Your task to perform on an android device: turn off translation in the chrome app Image 0: 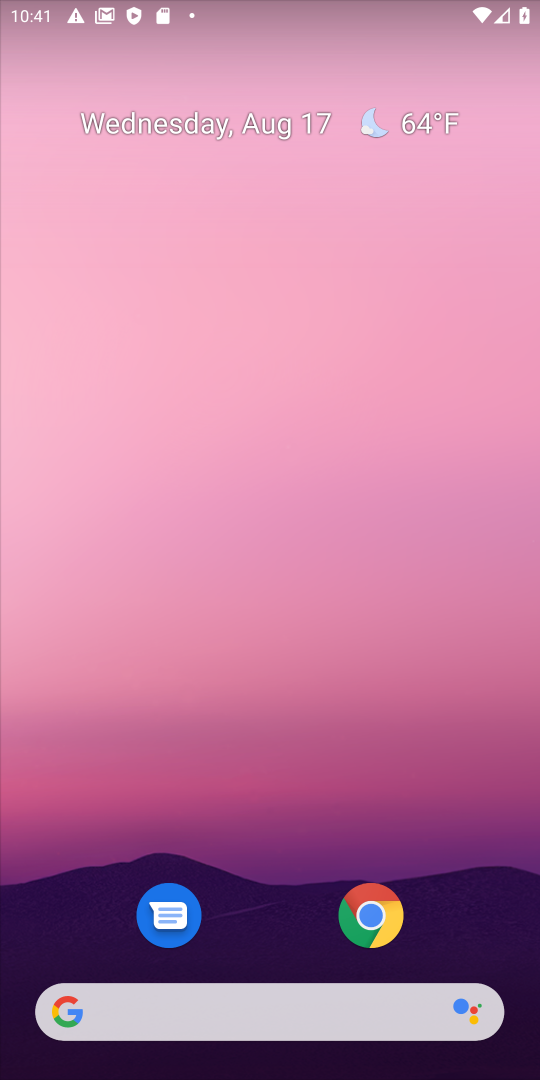
Step 0: click (270, 251)
Your task to perform on an android device: turn off translation in the chrome app Image 1: 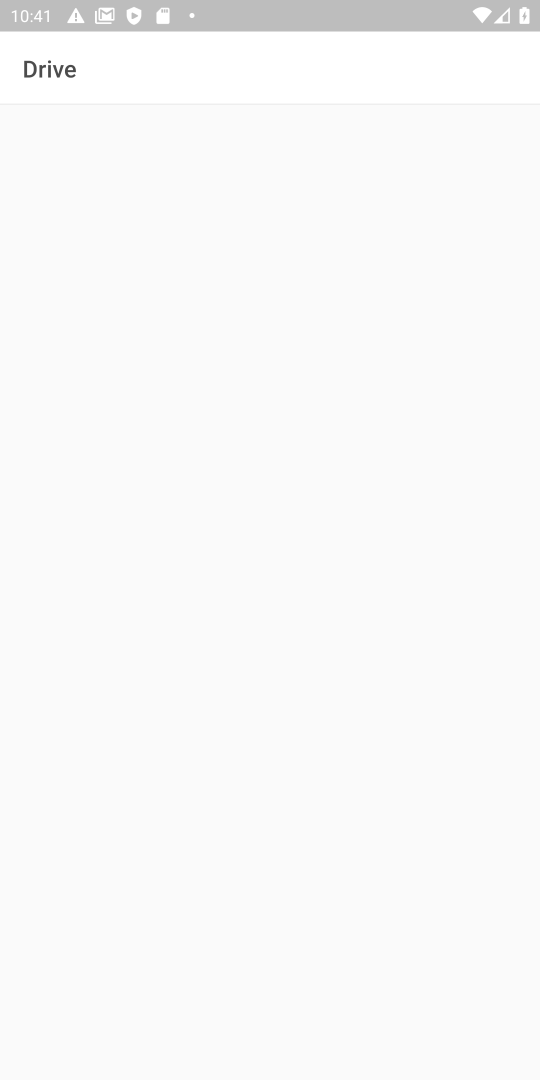
Step 1: press home button
Your task to perform on an android device: turn off translation in the chrome app Image 2: 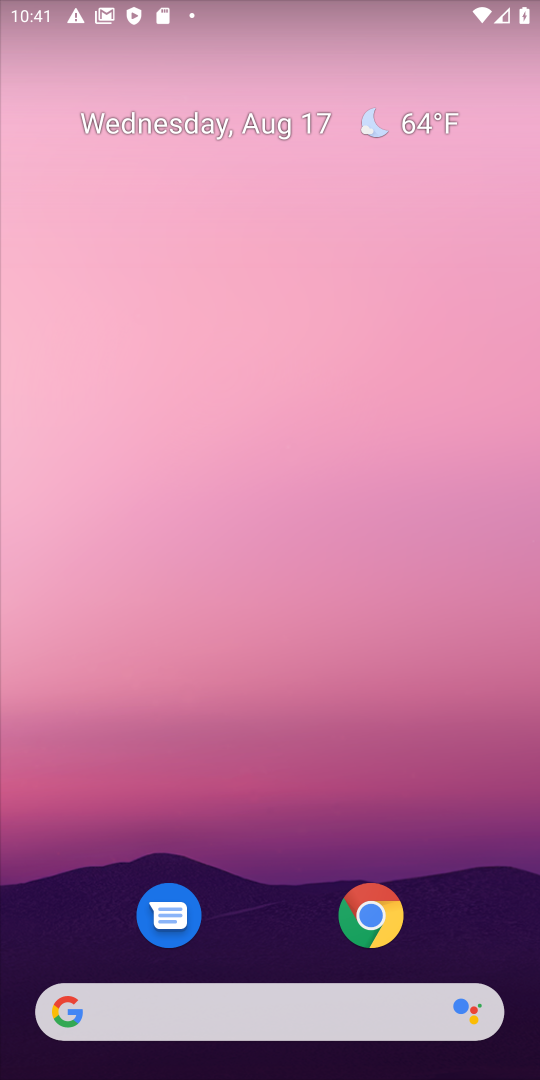
Step 2: click (369, 913)
Your task to perform on an android device: turn off translation in the chrome app Image 3: 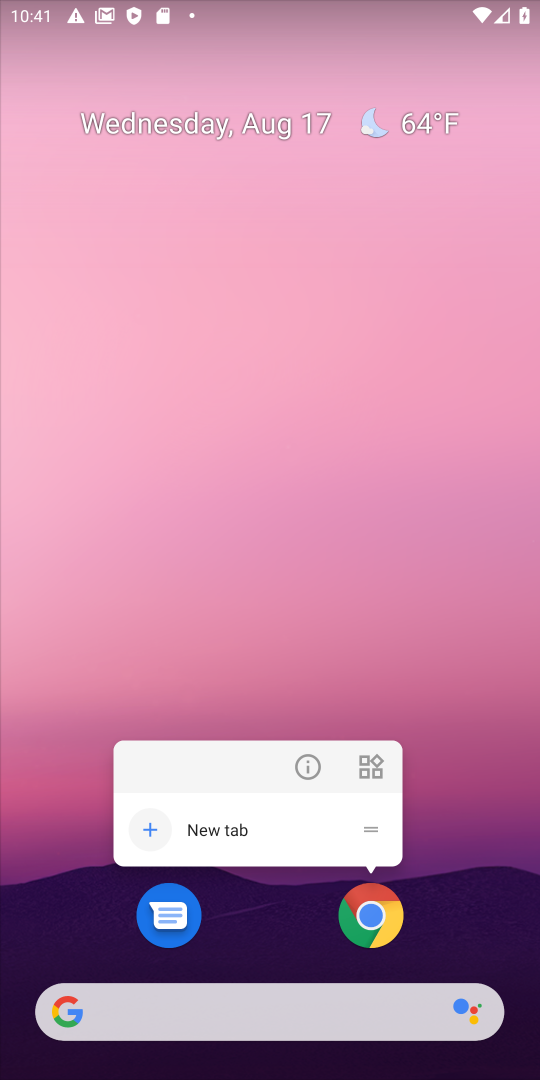
Step 3: click (368, 918)
Your task to perform on an android device: turn off translation in the chrome app Image 4: 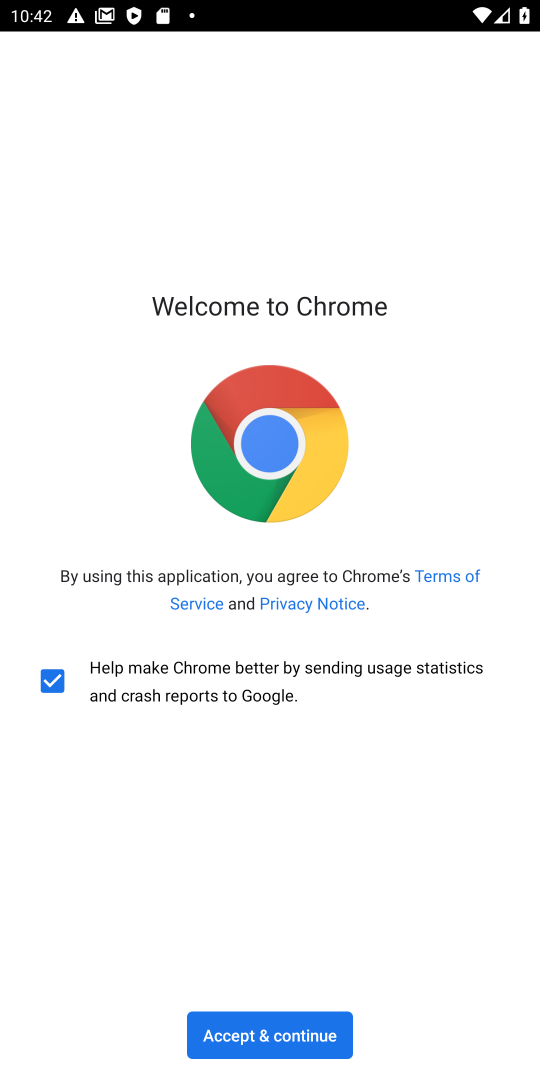
Step 4: click (273, 1039)
Your task to perform on an android device: turn off translation in the chrome app Image 5: 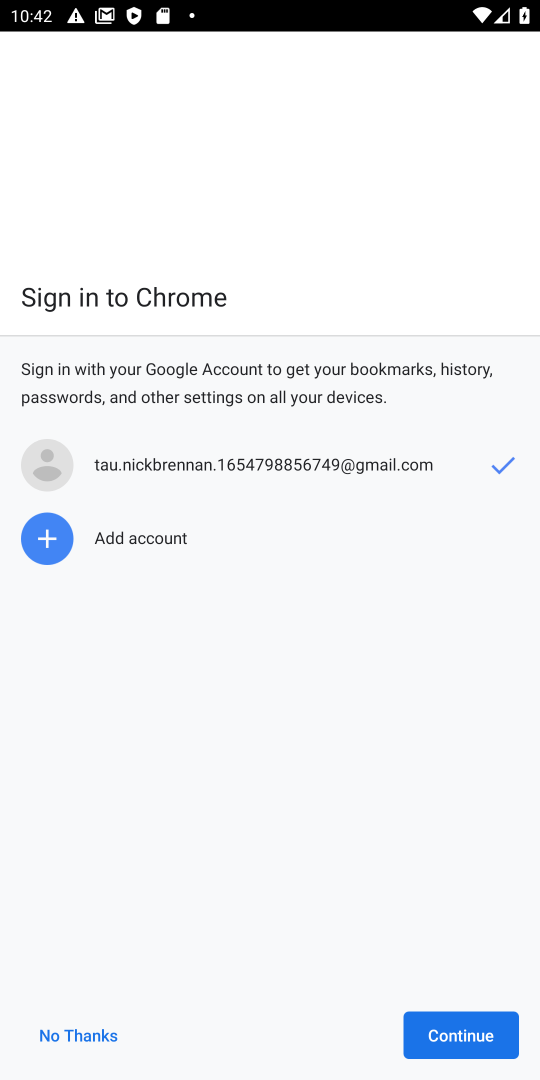
Step 5: click (439, 1032)
Your task to perform on an android device: turn off translation in the chrome app Image 6: 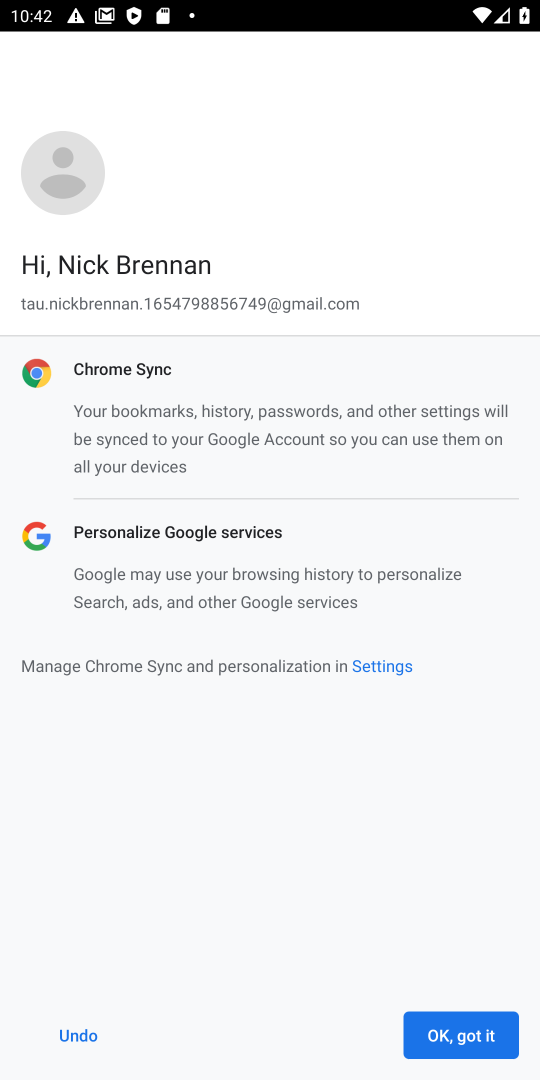
Step 6: click (439, 1032)
Your task to perform on an android device: turn off translation in the chrome app Image 7: 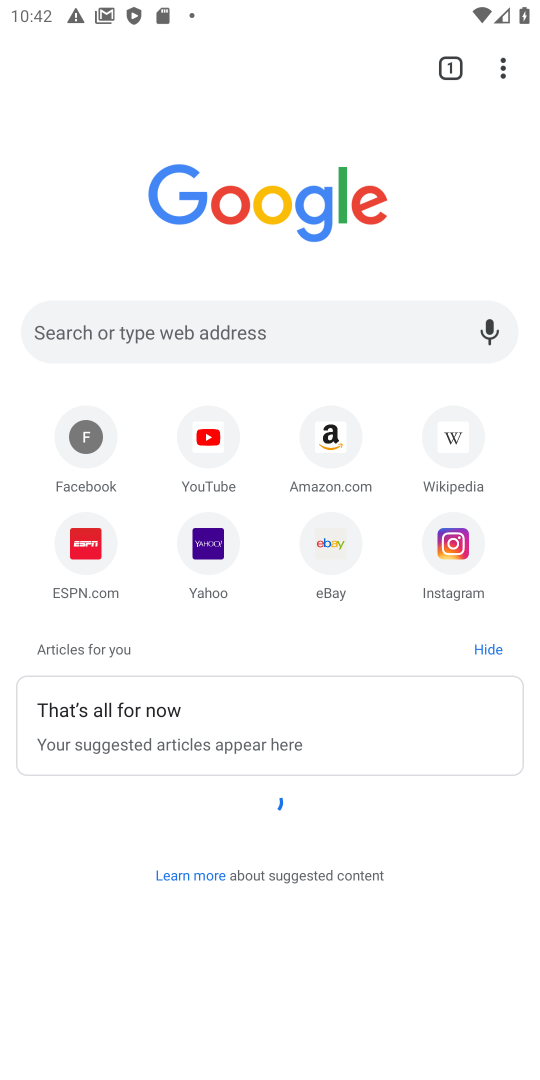
Step 7: click (498, 65)
Your task to perform on an android device: turn off translation in the chrome app Image 8: 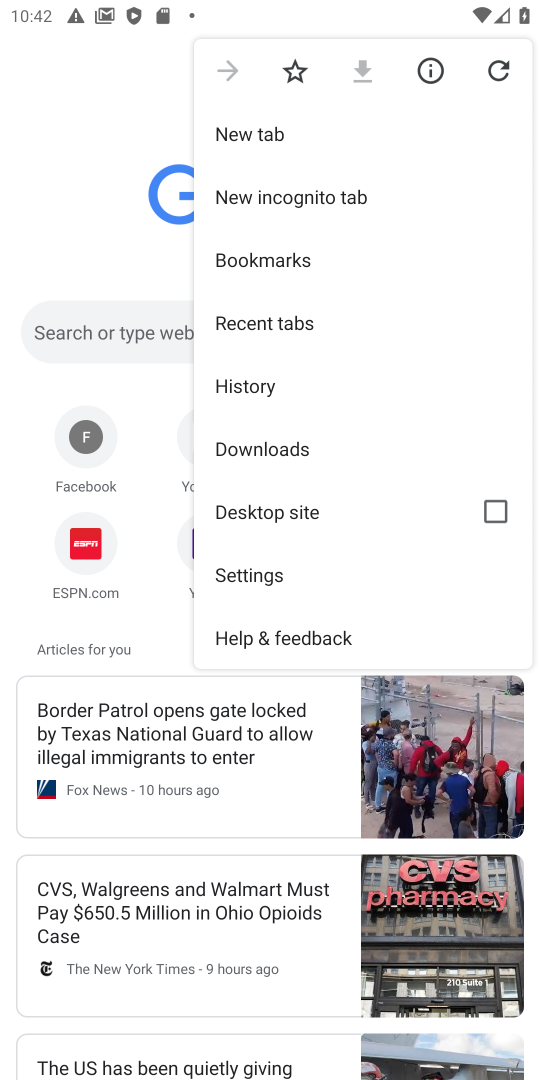
Step 8: click (256, 578)
Your task to perform on an android device: turn off translation in the chrome app Image 9: 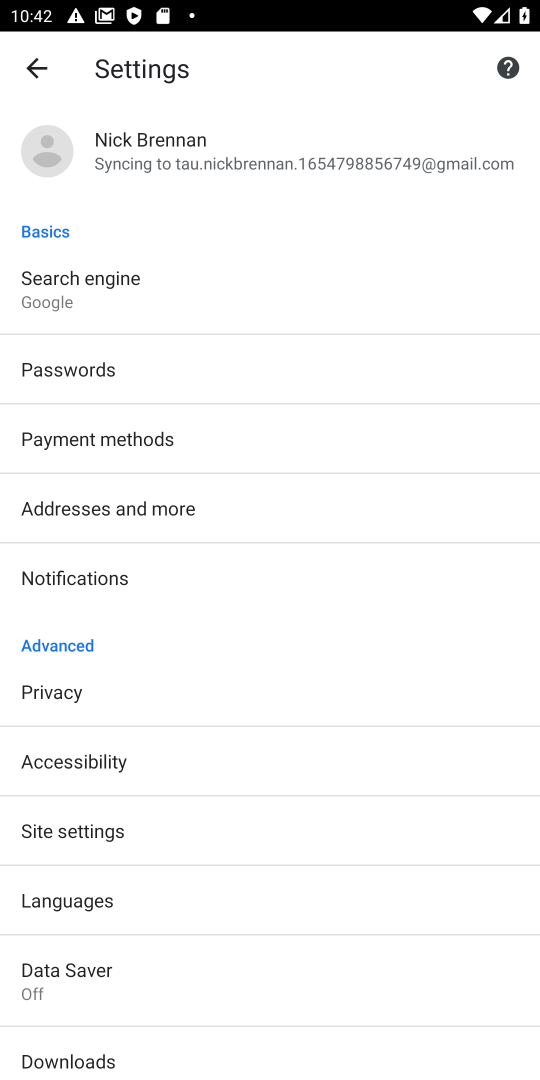
Step 9: click (83, 896)
Your task to perform on an android device: turn off translation in the chrome app Image 10: 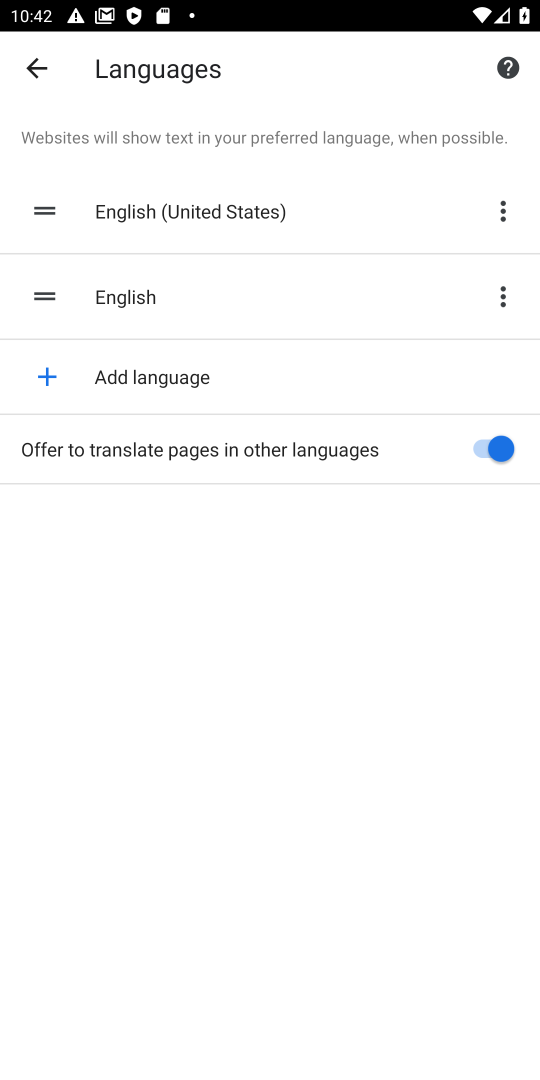
Step 10: click (490, 444)
Your task to perform on an android device: turn off translation in the chrome app Image 11: 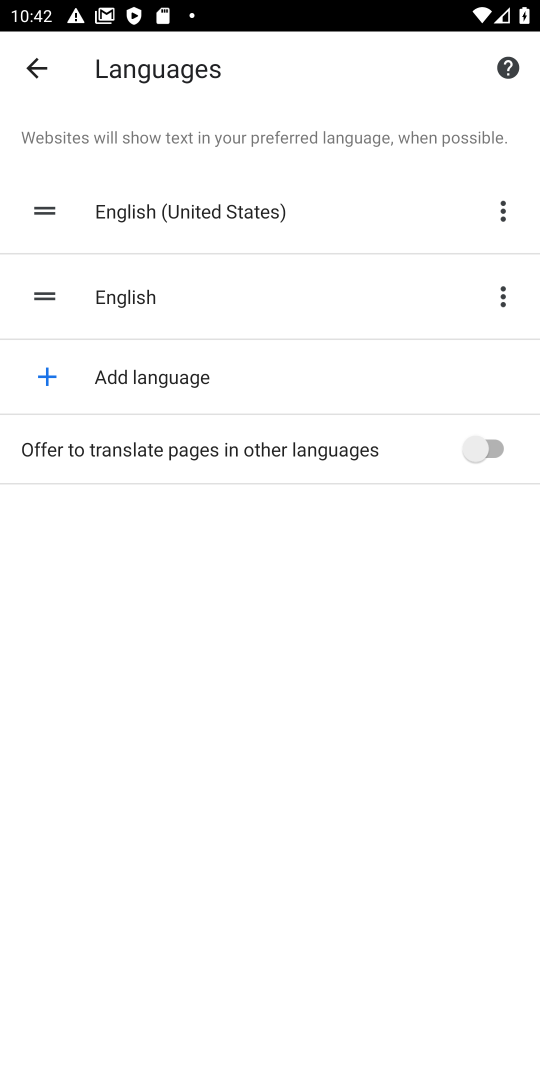
Step 11: task complete